Your task to perform on an android device: turn off smart reply in the gmail app Image 0: 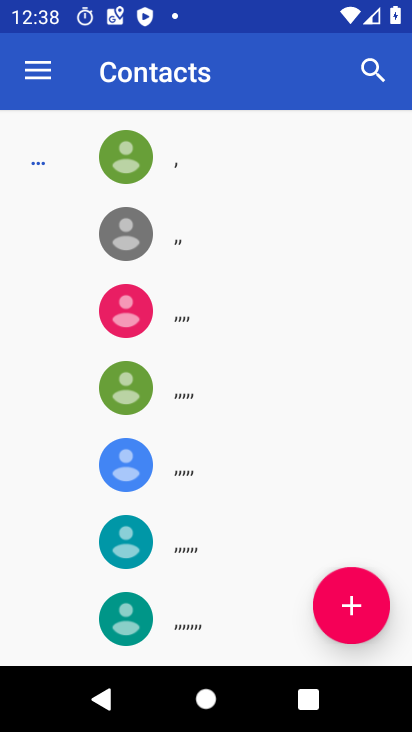
Step 0: press home button
Your task to perform on an android device: turn off smart reply in the gmail app Image 1: 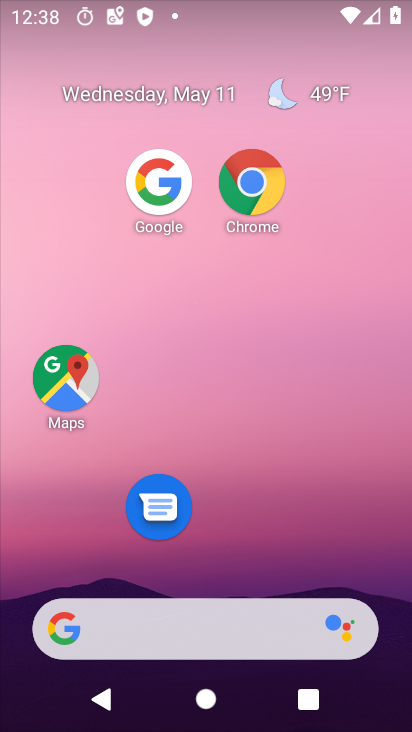
Step 1: drag from (258, 524) to (319, 38)
Your task to perform on an android device: turn off smart reply in the gmail app Image 2: 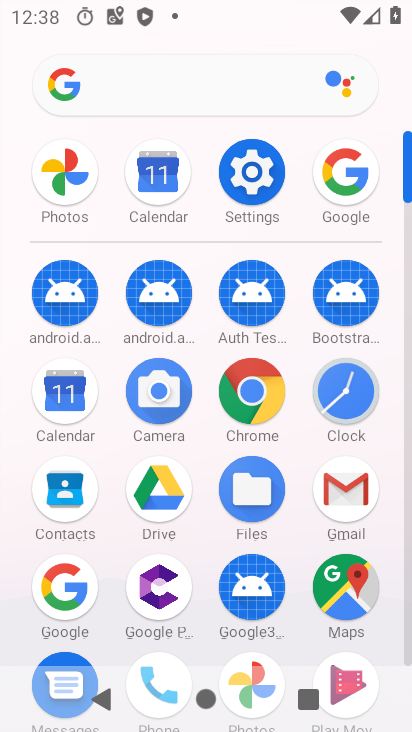
Step 2: click (355, 480)
Your task to perform on an android device: turn off smart reply in the gmail app Image 3: 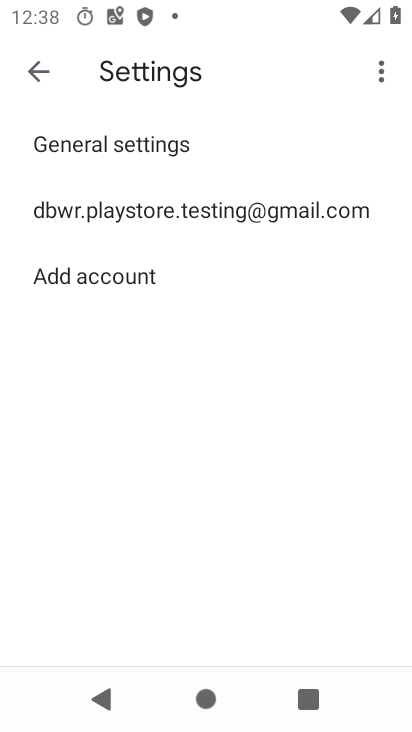
Step 3: press back button
Your task to perform on an android device: turn off smart reply in the gmail app Image 4: 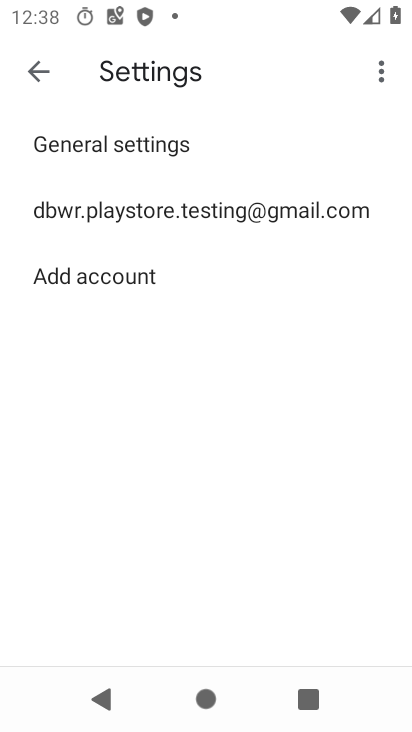
Step 4: click (179, 212)
Your task to perform on an android device: turn off smart reply in the gmail app Image 5: 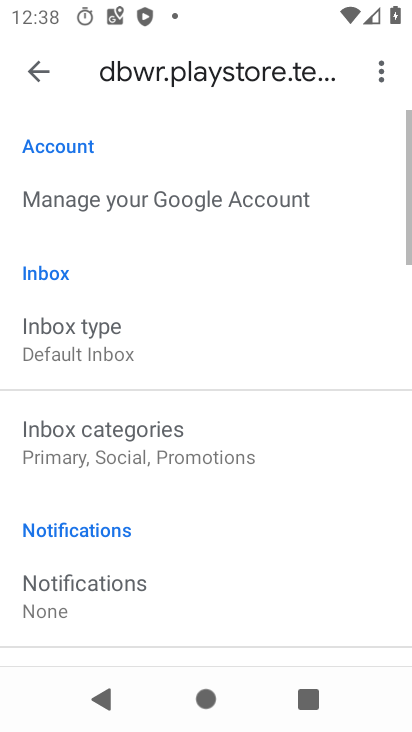
Step 5: drag from (185, 570) to (266, 6)
Your task to perform on an android device: turn off smart reply in the gmail app Image 6: 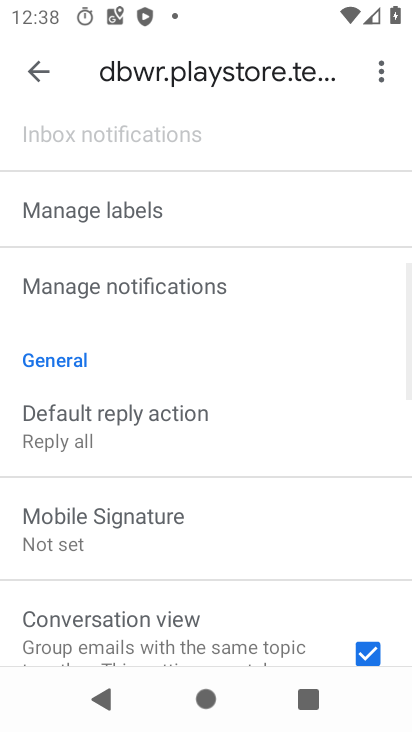
Step 6: drag from (207, 608) to (236, 220)
Your task to perform on an android device: turn off smart reply in the gmail app Image 7: 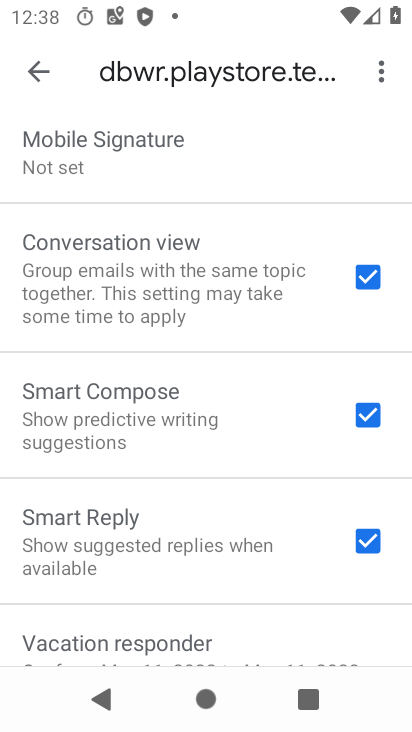
Step 7: click (367, 550)
Your task to perform on an android device: turn off smart reply in the gmail app Image 8: 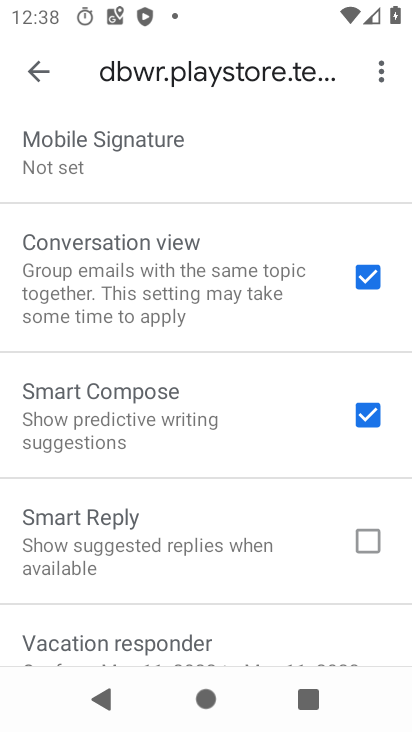
Step 8: task complete